Your task to perform on an android device: Open Google Maps and go to "Timeline" Image 0: 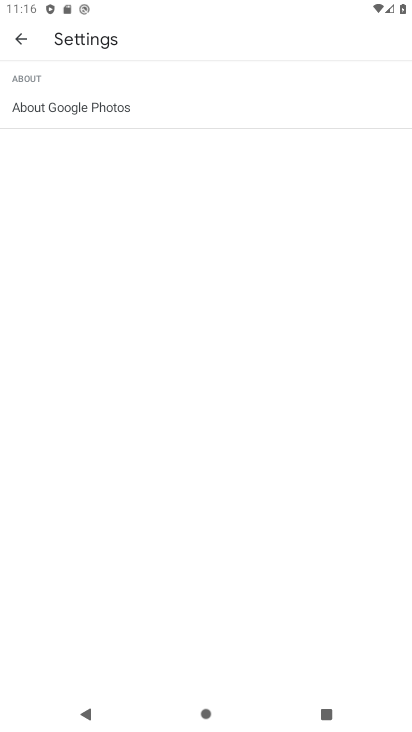
Step 0: press home button
Your task to perform on an android device: Open Google Maps and go to "Timeline" Image 1: 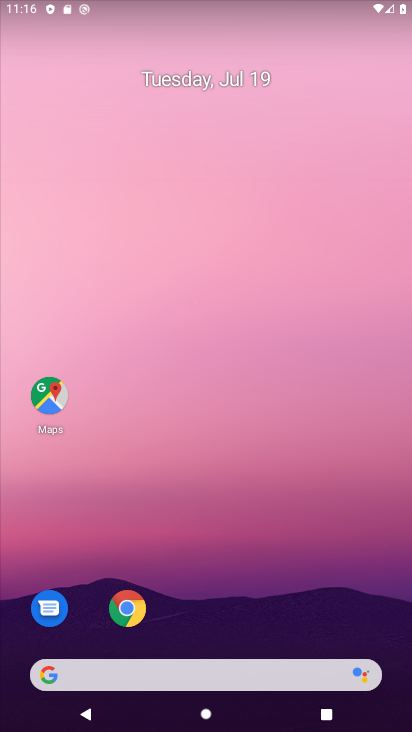
Step 1: click (46, 389)
Your task to perform on an android device: Open Google Maps and go to "Timeline" Image 2: 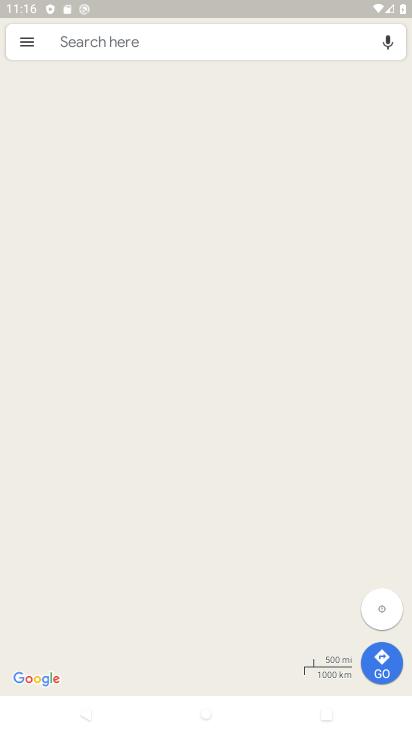
Step 2: click (26, 42)
Your task to perform on an android device: Open Google Maps and go to "Timeline" Image 3: 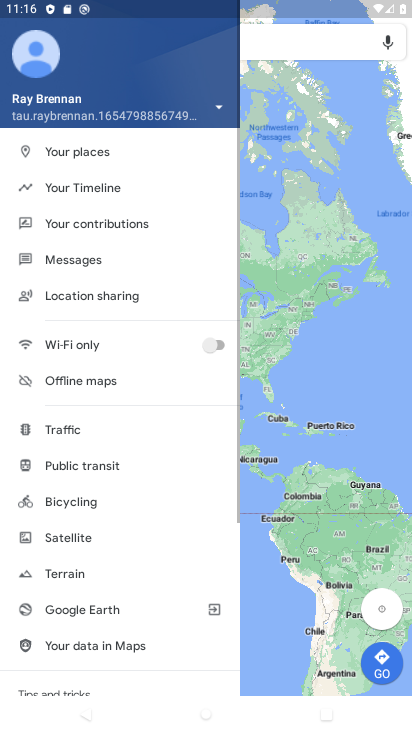
Step 3: drag from (26, 42) to (77, 332)
Your task to perform on an android device: Open Google Maps and go to "Timeline" Image 4: 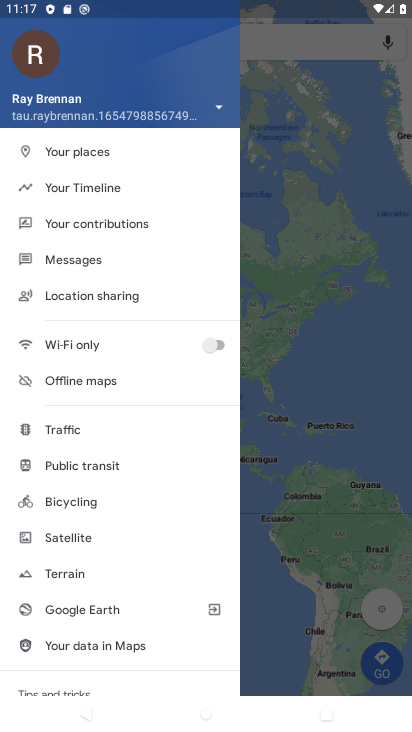
Step 4: click (72, 195)
Your task to perform on an android device: Open Google Maps and go to "Timeline" Image 5: 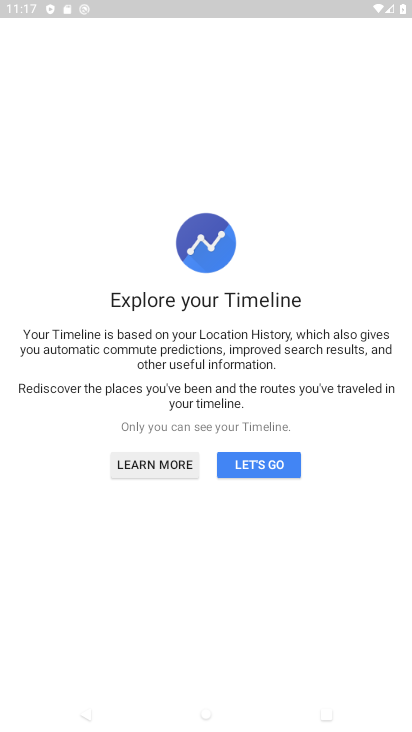
Step 5: click (235, 462)
Your task to perform on an android device: Open Google Maps and go to "Timeline" Image 6: 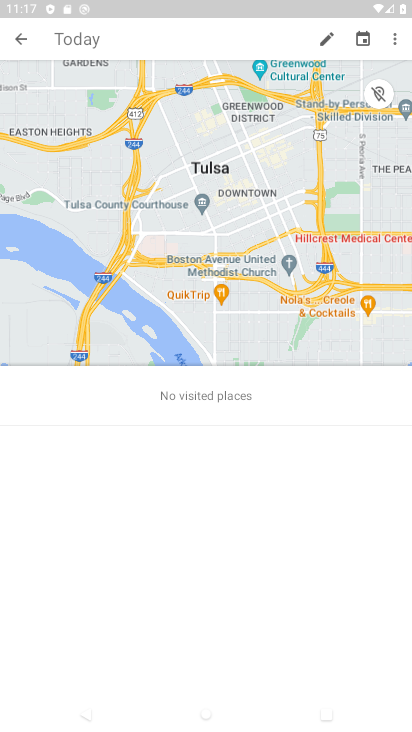
Step 6: task complete